Your task to perform on an android device: Open Chrome and go to the settings page Image 0: 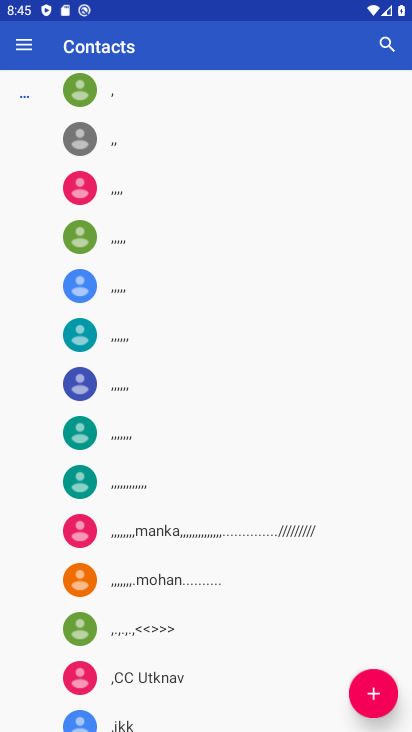
Step 0: press home button
Your task to perform on an android device: Open Chrome and go to the settings page Image 1: 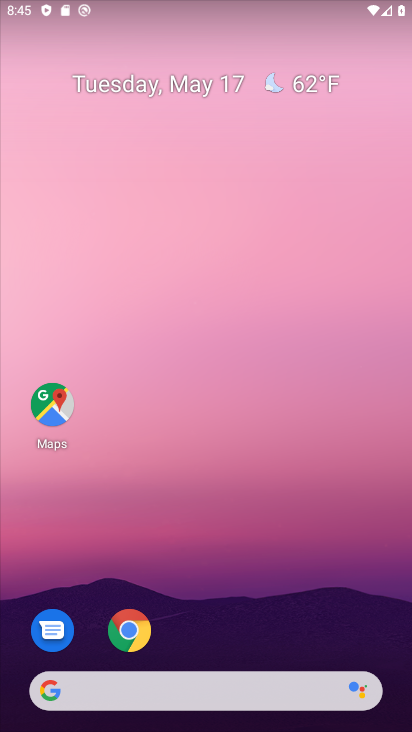
Step 1: click (133, 647)
Your task to perform on an android device: Open Chrome and go to the settings page Image 2: 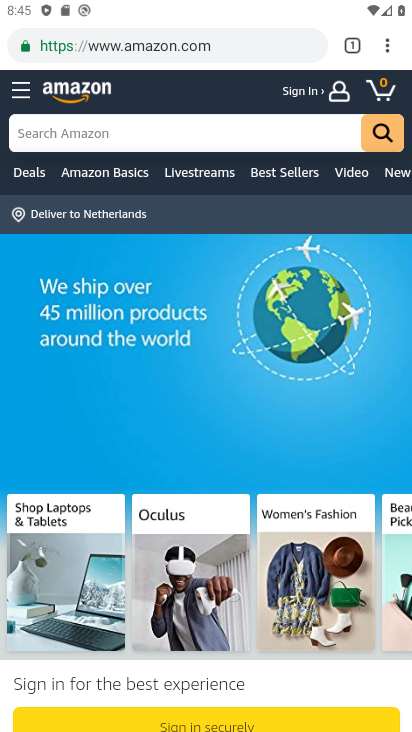
Step 2: click (391, 42)
Your task to perform on an android device: Open Chrome and go to the settings page Image 3: 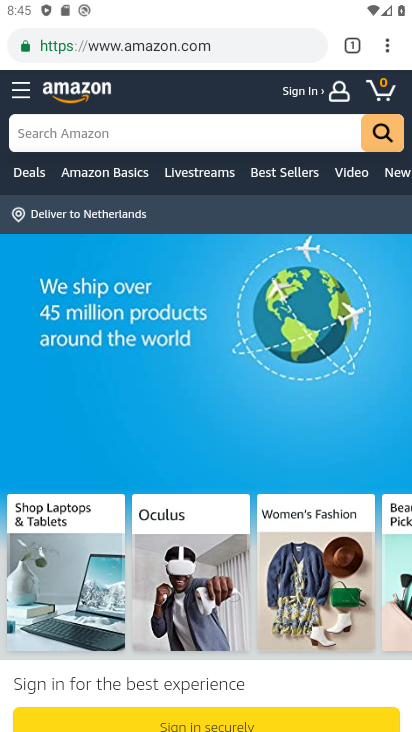
Step 3: click (389, 47)
Your task to perform on an android device: Open Chrome and go to the settings page Image 4: 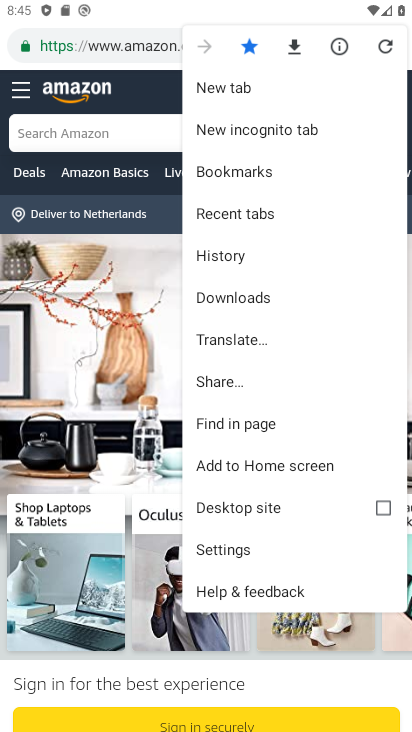
Step 4: click (245, 548)
Your task to perform on an android device: Open Chrome and go to the settings page Image 5: 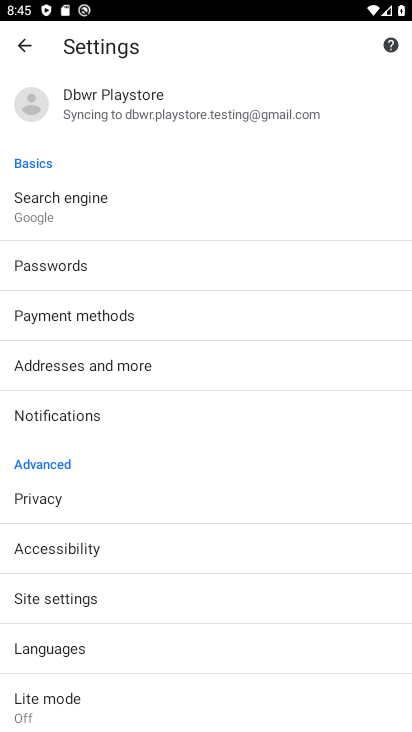
Step 5: task complete